Your task to perform on an android device: Go to Yahoo.com Image 0: 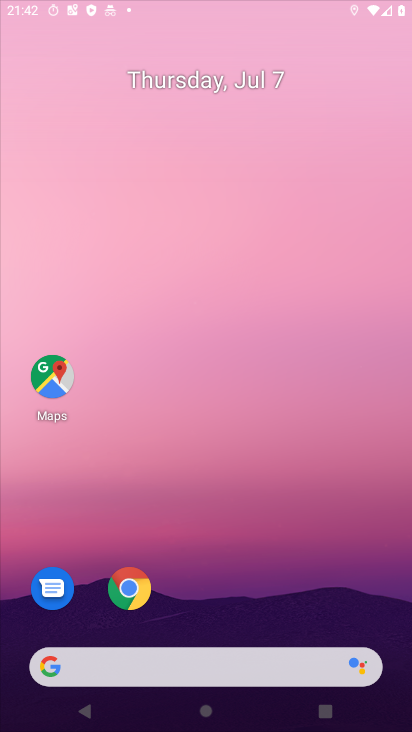
Step 0: drag from (252, 616) to (188, 241)
Your task to perform on an android device: Go to Yahoo.com Image 1: 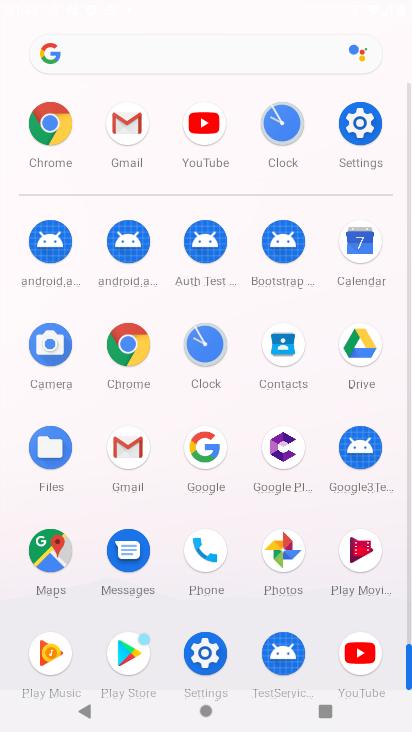
Step 1: click (52, 132)
Your task to perform on an android device: Go to Yahoo.com Image 2: 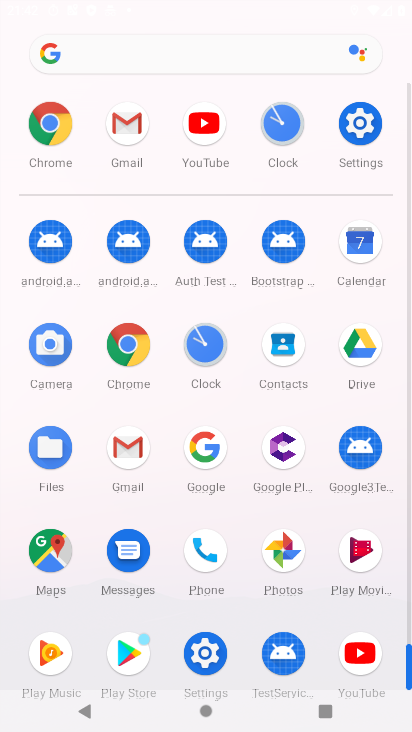
Step 2: click (52, 134)
Your task to perform on an android device: Go to Yahoo.com Image 3: 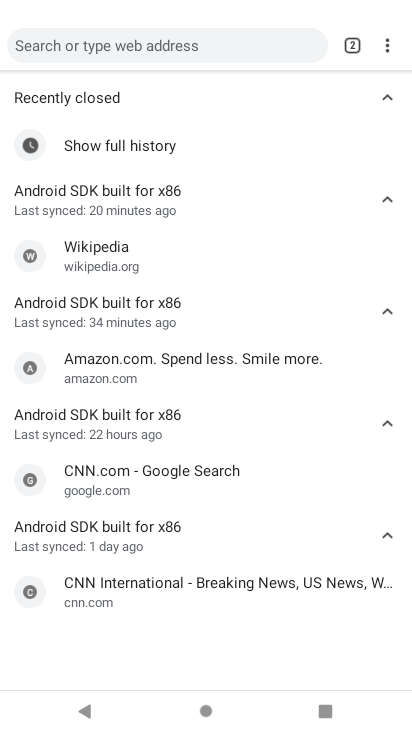
Step 3: press back button
Your task to perform on an android device: Go to Yahoo.com Image 4: 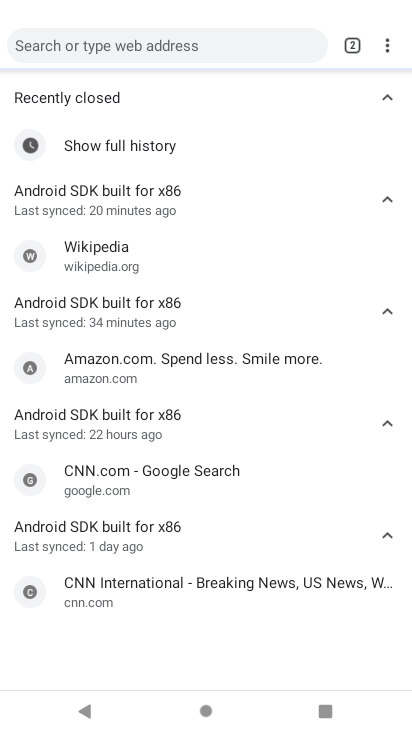
Step 4: press back button
Your task to perform on an android device: Go to Yahoo.com Image 5: 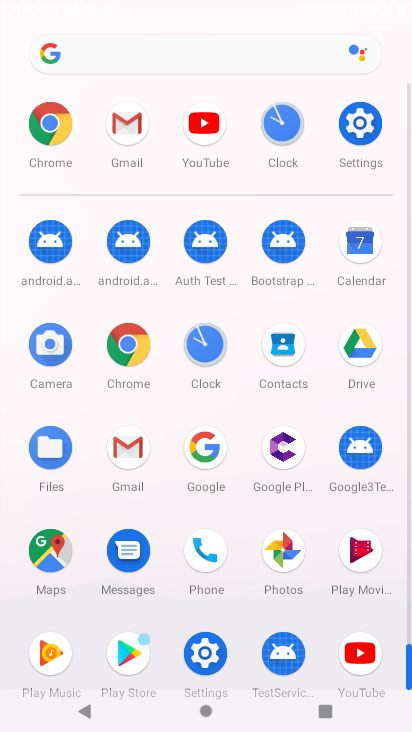
Step 5: click (54, 121)
Your task to perform on an android device: Go to Yahoo.com Image 6: 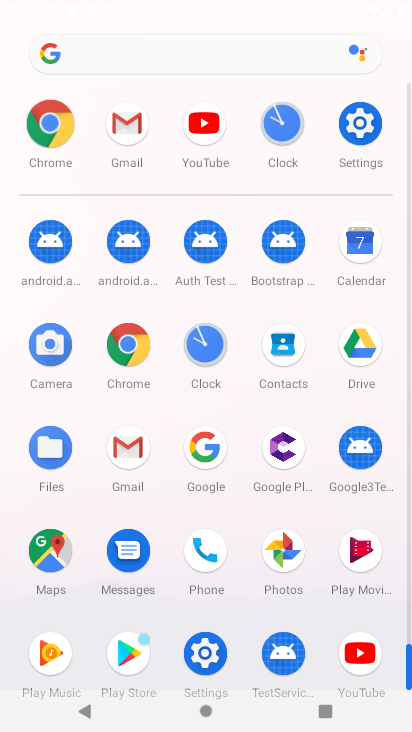
Step 6: click (56, 126)
Your task to perform on an android device: Go to Yahoo.com Image 7: 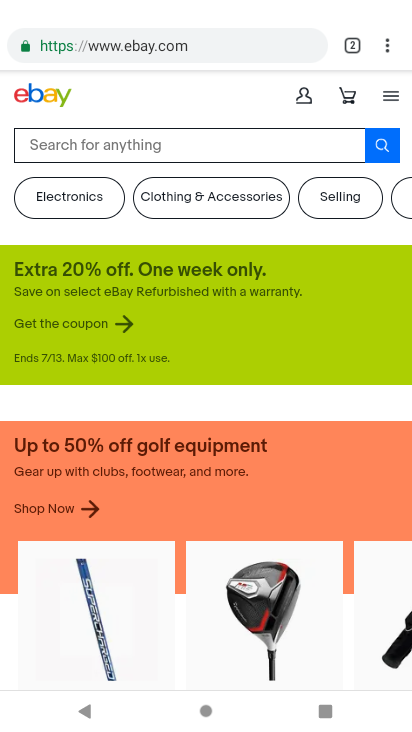
Step 7: click (385, 43)
Your task to perform on an android device: Go to Yahoo.com Image 8: 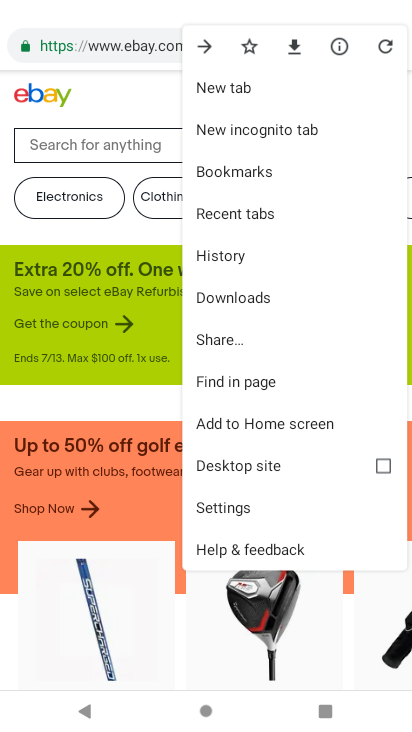
Step 8: click (215, 84)
Your task to perform on an android device: Go to Yahoo.com Image 9: 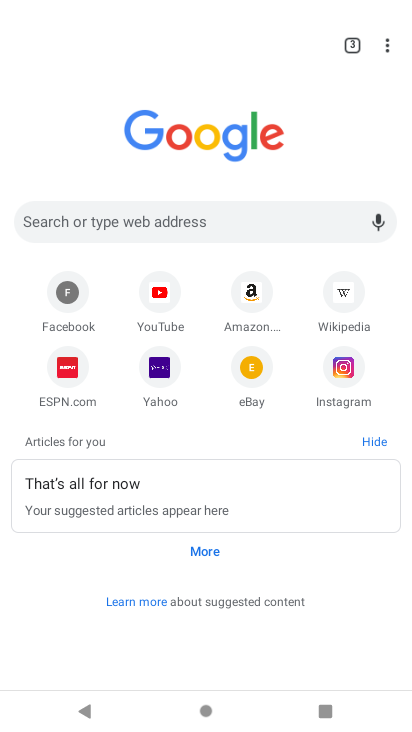
Step 9: click (165, 349)
Your task to perform on an android device: Go to Yahoo.com Image 10: 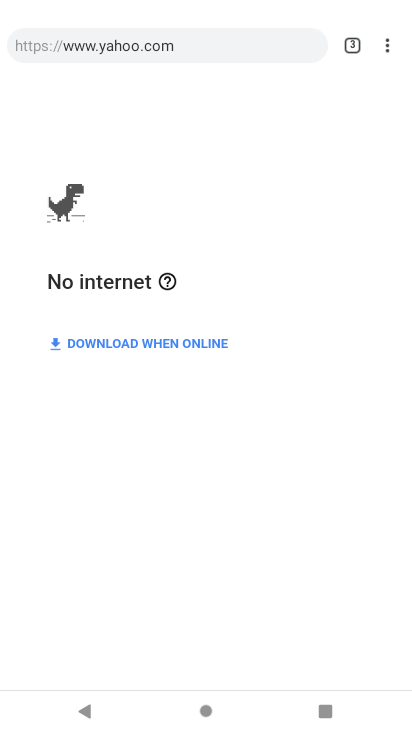
Step 10: task complete